Your task to perform on an android device: Open internet settings Image 0: 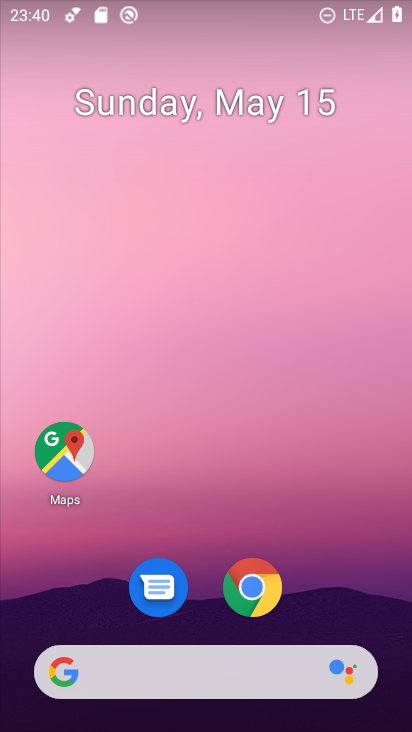
Step 0: drag from (209, 621) to (209, 301)
Your task to perform on an android device: Open internet settings Image 1: 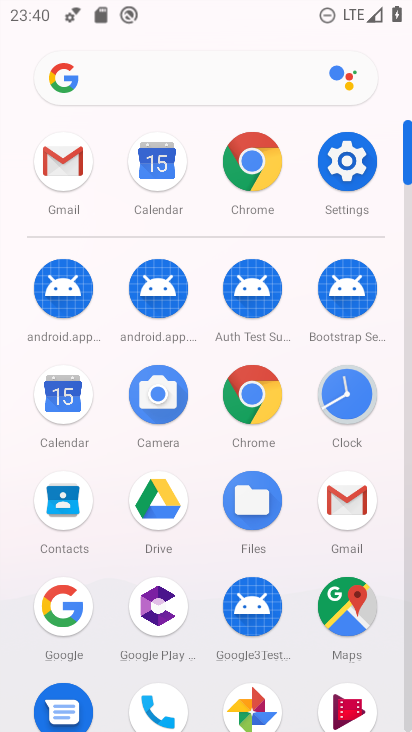
Step 1: click (334, 148)
Your task to perform on an android device: Open internet settings Image 2: 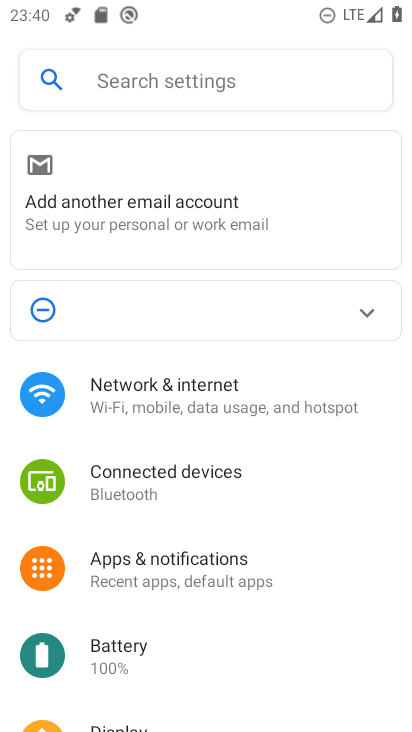
Step 2: click (223, 396)
Your task to perform on an android device: Open internet settings Image 3: 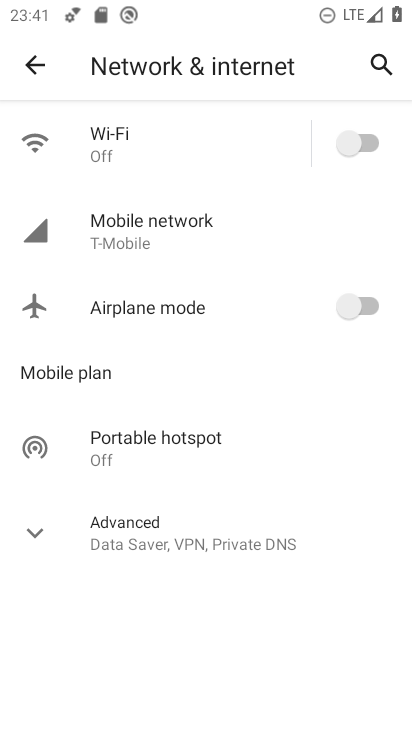
Step 3: task complete